Your task to perform on an android device: show emergency info Image 0: 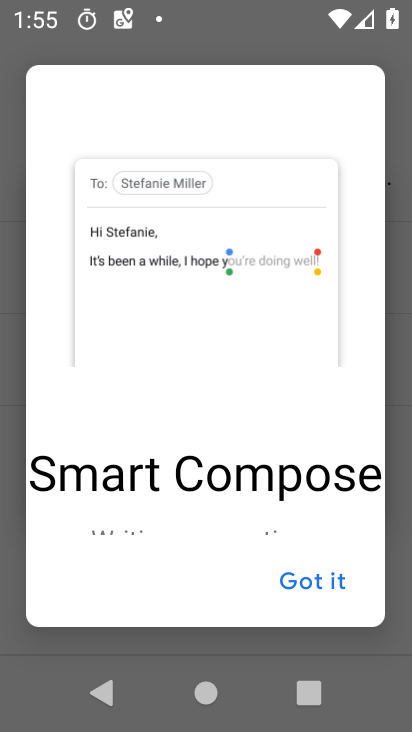
Step 0: press home button
Your task to perform on an android device: show emergency info Image 1: 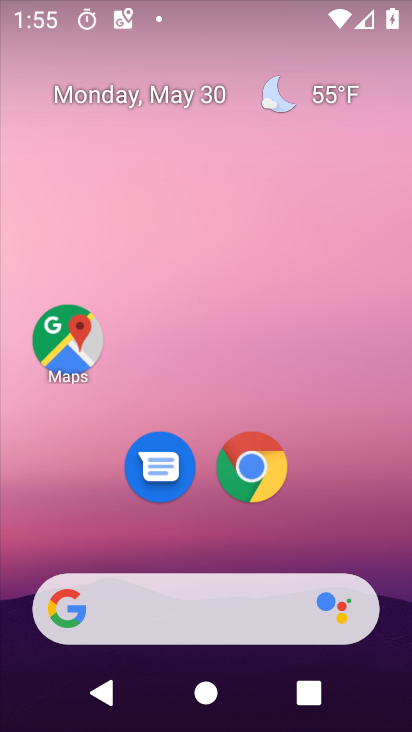
Step 1: drag from (398, 551) to (391, 318)
Your task to perform on an android device: show emergency info Image 2: 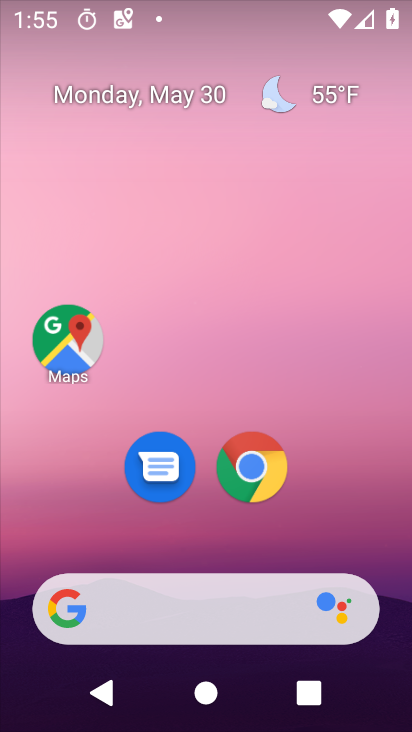
Step 2: drag from (386, 700) to (362, 176)
Your task to perform on an android device: show emergency info Image 3: 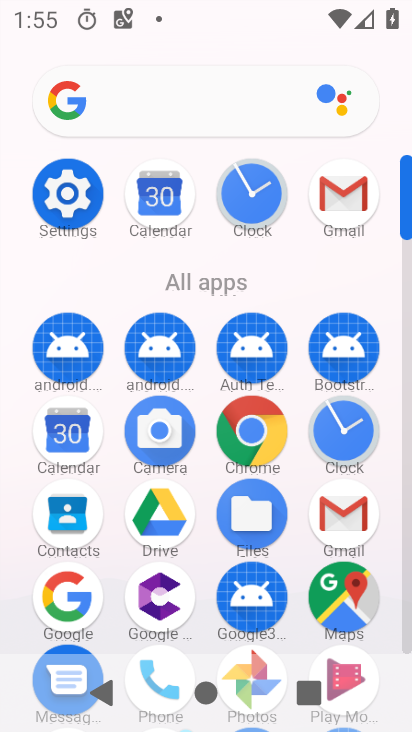
Step 3: drag from (287, 568) to (264, 171)
Your task to perform on an android device: show emergency info Image 4: 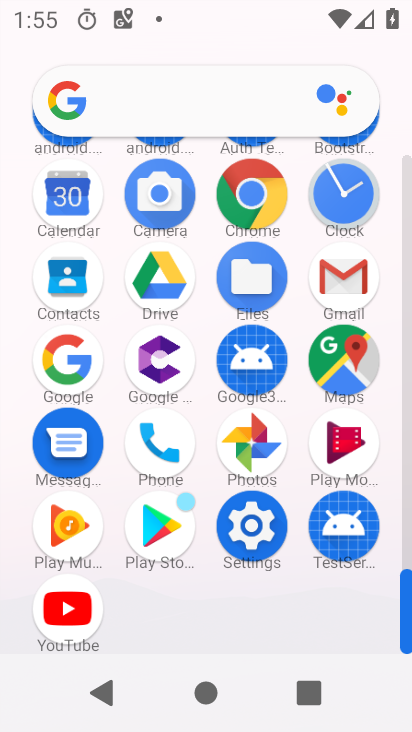
Step 4: click (243, 539)
Your task to perform on an android device: show emergency info Image 5: 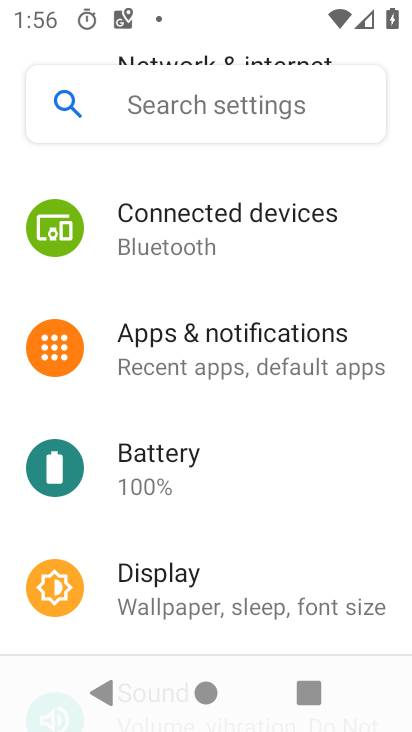
Step 5: drag from (288, 621) to (239, 217)
Your task to perform on an android device: show emergency info Image 6: 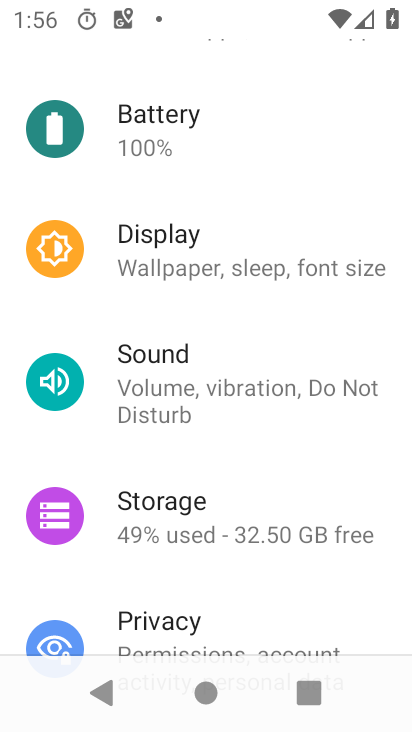
Step 6: drag from (259, 584) to (222, 230)
Your task to perform on an android device: show emergency info Image 7: 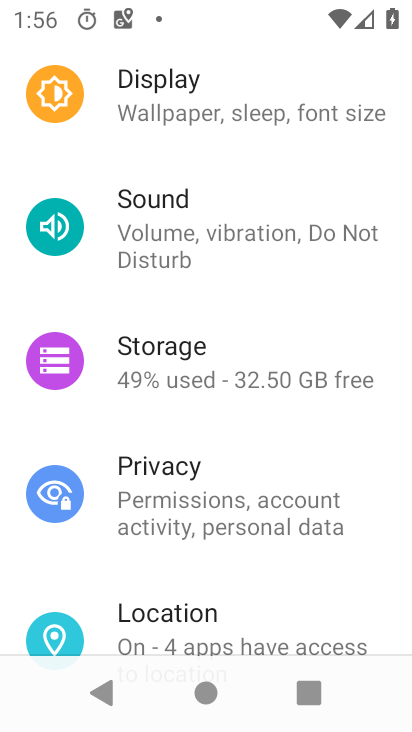
Step 7: drag from (267, 616) to (246, 174)
Your task to perform on an android device: show emergency info Image 8: 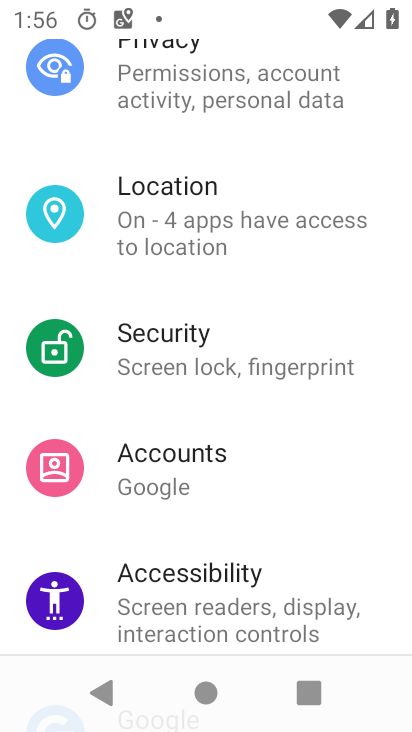
Step 8: drag from (283, 574) to (258, 230)
Your task to perform on an android device: show emergency info Image 9: 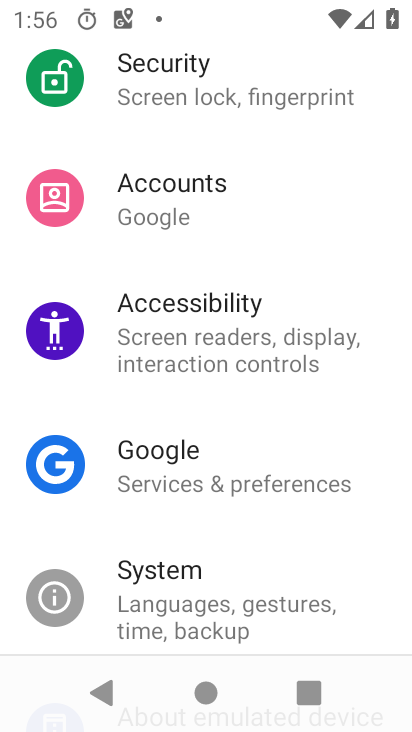
Step 9: drag from (337, 623) to (293, 196)
Your task to perform on an android device: show emergency info Image 10: 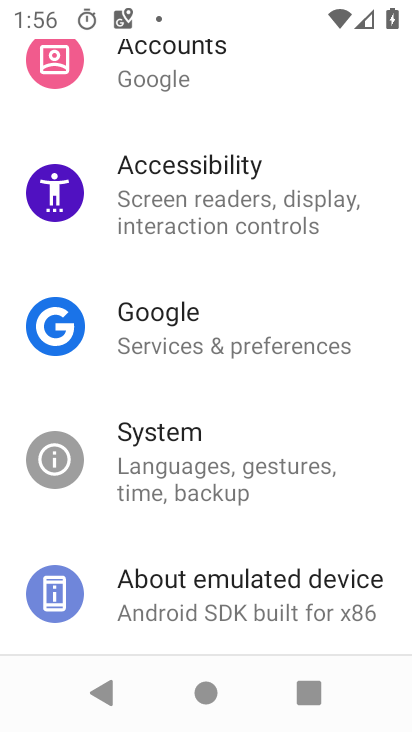
Step 10: click (227, 580)
Your task to perform on an android device: show emergency info Image 11: 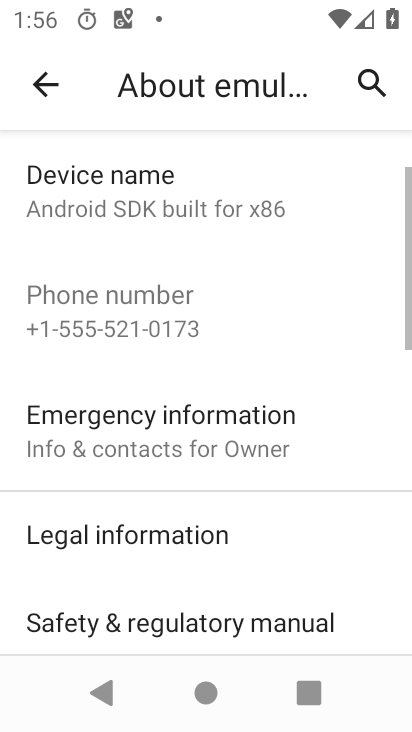
Step 11: click (179, 423)
Your task to perform on an android device: show emergency info Image 12: 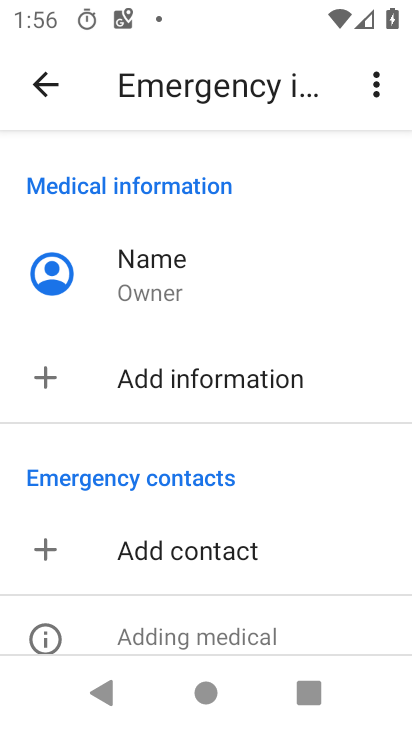
Step 12: task complete